Your task to perform on an android device: toggle notifications settings in the gmail app Image 0: 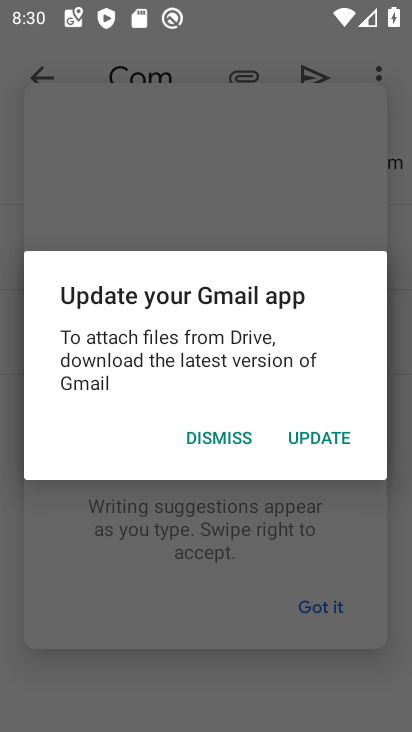
Step 0: press home button
Your task to perform on an android device: toggle notifications settings in the gmail app Image 1: 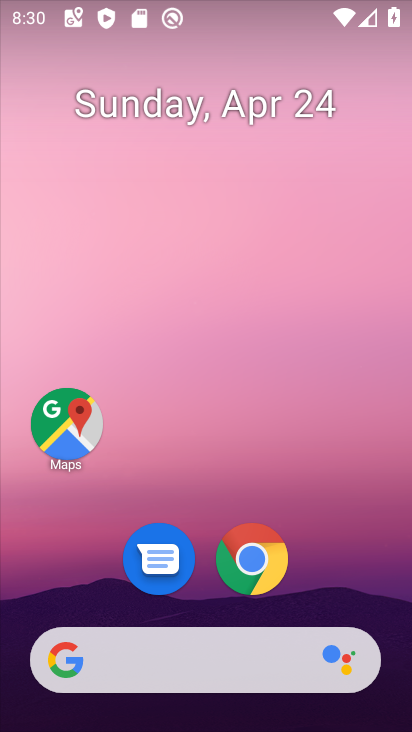
Step 1: drag from (343, 485) to (312, 91)
Your task to perform on an android device: toggle notifications settings in the gmail app Image 2: 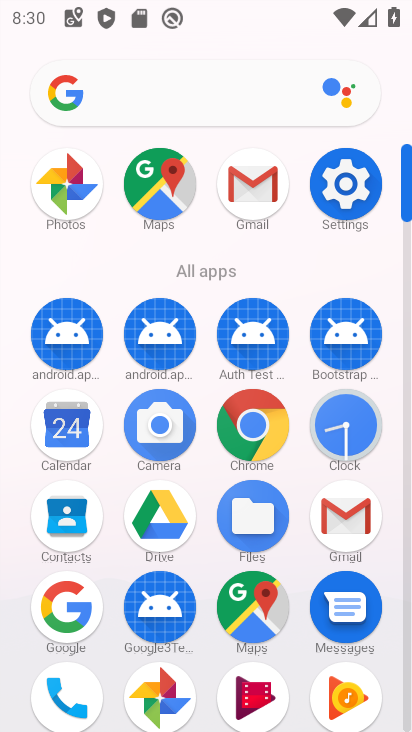
Step 2: click (256, 192)
Your task to perform on an android device: toggle notifications settings in the gmail app Image 3: 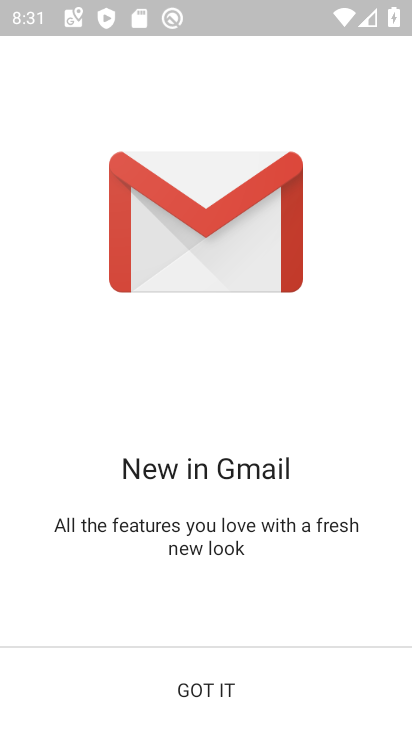
Step 3: click (207, 692)
Your task to perform on an android device: toggle notifications settings in the gmail app Image 4: 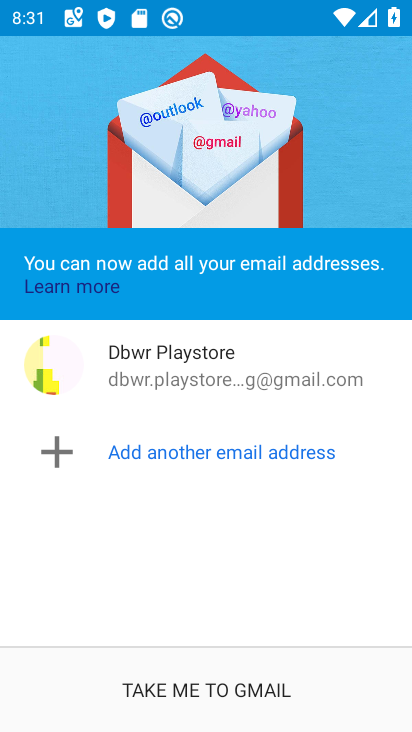
Step 4: click (207, 692)
Your task to perform on an android device: toggle notifications settings in the gmail app Image 5: 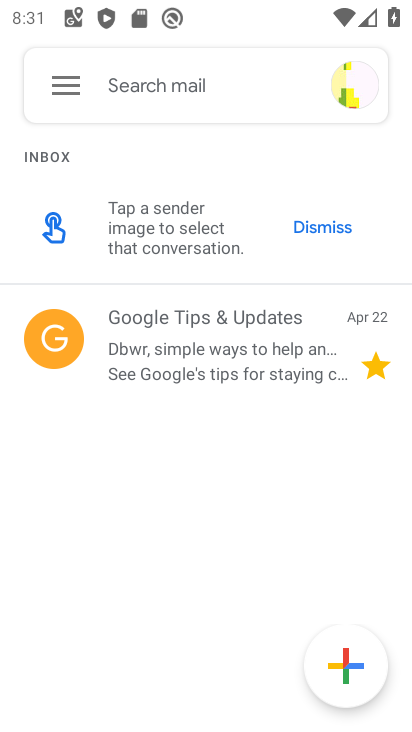
Step 5: click (57, 85)
Your task to perform on an android device: toggle notifications settings in the gmail app Image 6: 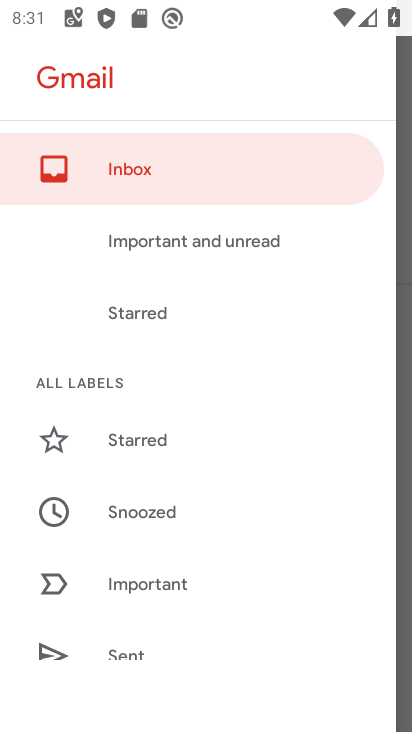
Step 6: drag from (130, 572) to (180, 255)
Your task to perform on an android device: toggle notifications settings in the gmail app Image 7: 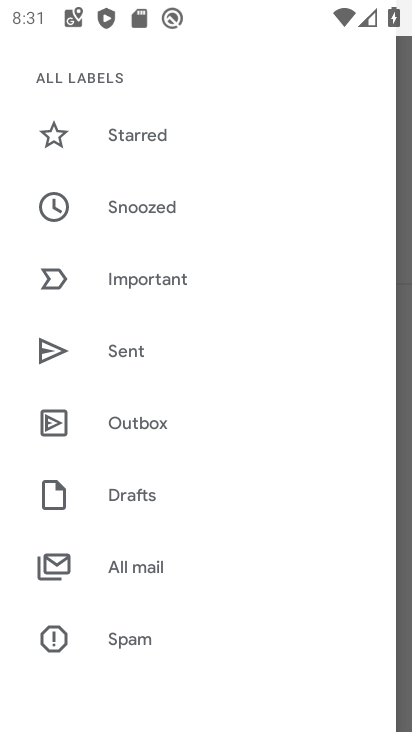
Step 7: drag from (252, 611) to (268, 181)
Your task to perform on an android device: toggle notifications settings in the gmail app Image 8: 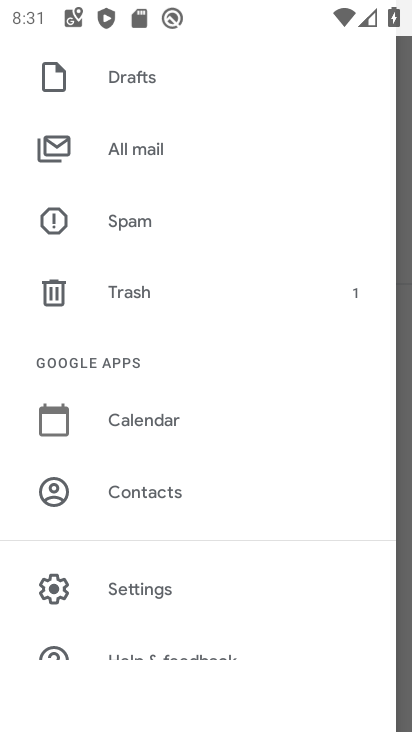
Step 8: drag from (287, 551) to (272, 310)
Your task to perform on an android device: toggle notifications settings in the gmail app Image 9: 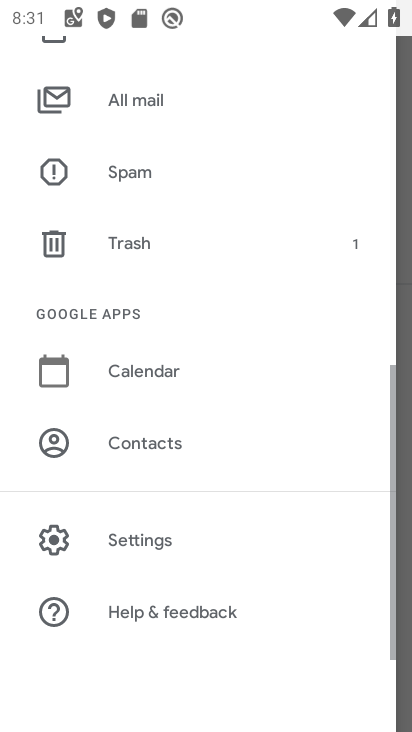
Step 9: click (203, 518)
Your task to perform on an android device: toggle notifications settings in the gmail app Image 10: 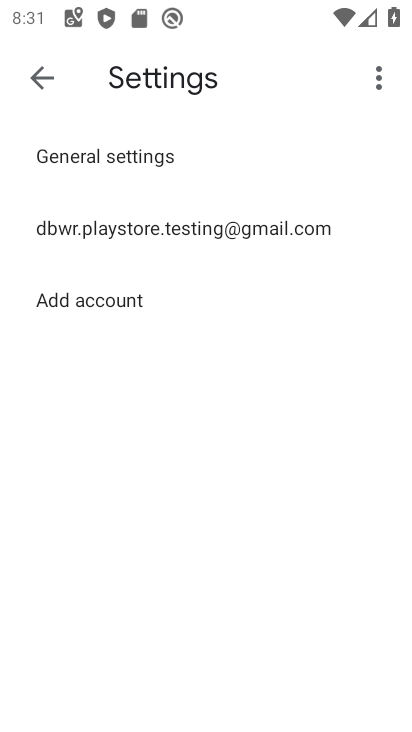
Step 10: click (282, 236)
Your task to perform on an android device: toggle notifications settings in the gmail app Image 11: 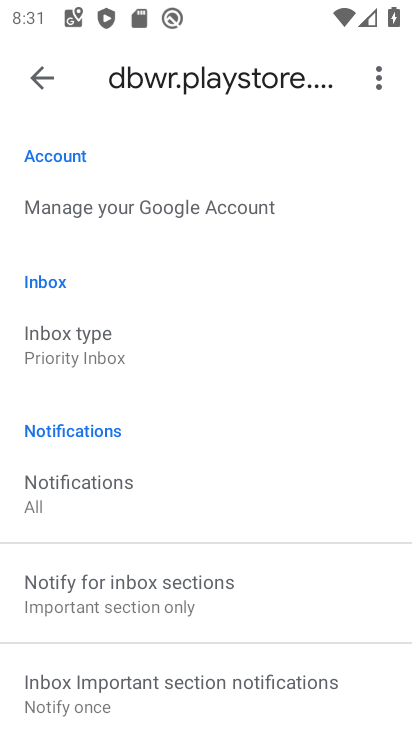
Step 11: drag from (244, 668) to (242, 350)
Your task to perform on an android device: toggle notifications settings in the gmail app Image 12: 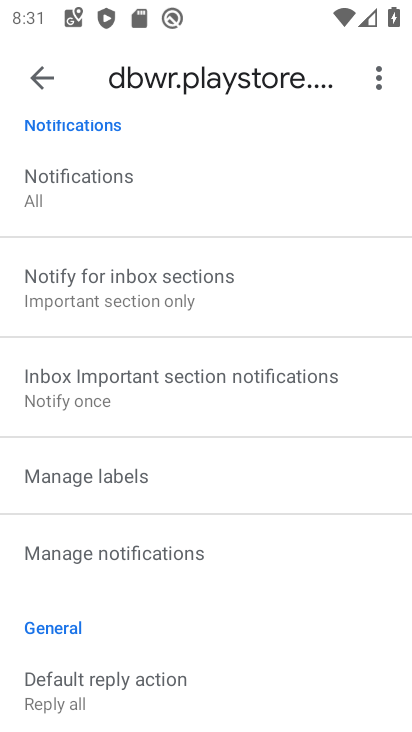
Step 12: click (213, 545)
Your task to perform on an android device: toggle notifications settings in the gmail app Image 13: 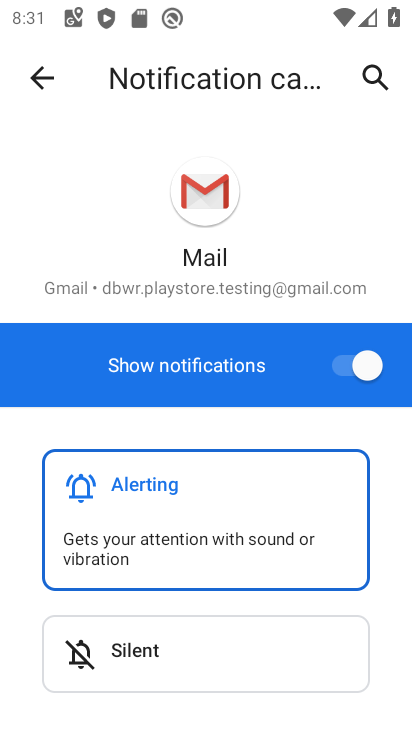
Step 13: drag from (401, 670) to (366, 411)
Your task to perform on an android device: toggle notifications settings in the gmail app Image 14: 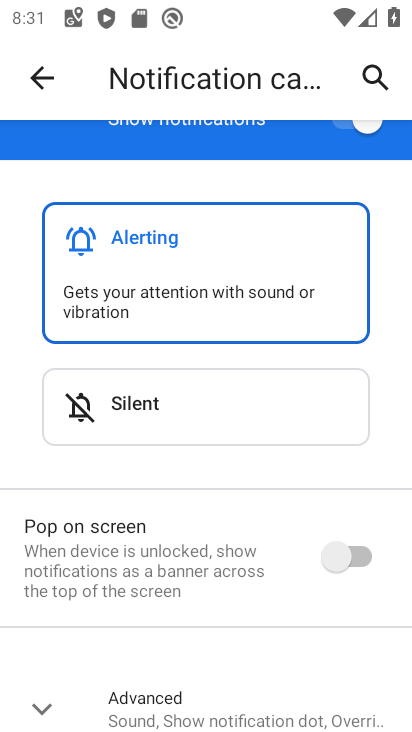
Step 14: click (341, 413)
Your task to perform on an android device: toggle notifications settings in the gmail app Image 15: 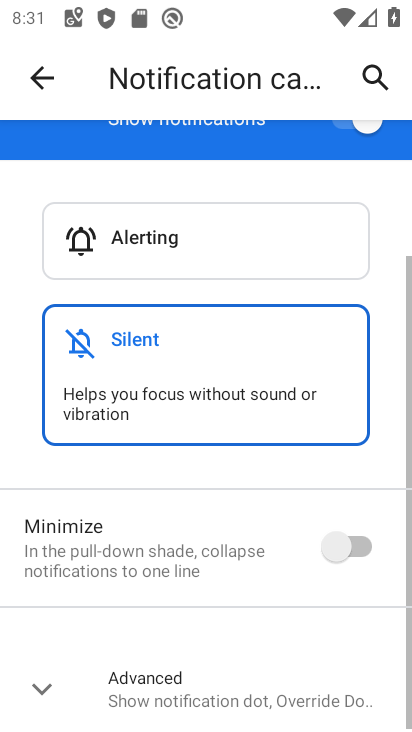
Step 15: click (354, 570)
Your task to perform on an android device: toggle notifications settings in the gmail app Image 16: 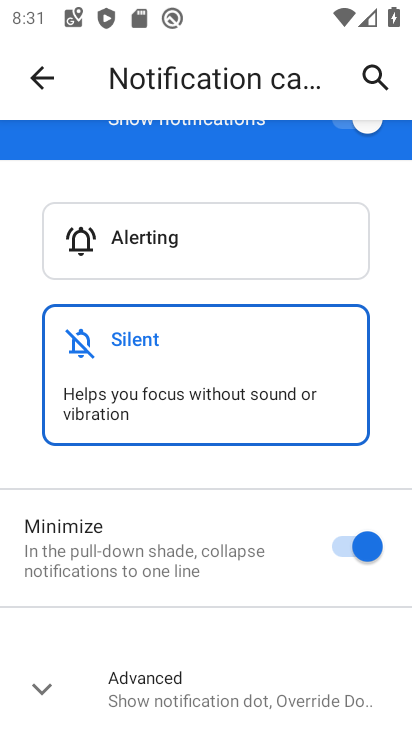
Step 16: task complete